Your task to perform on an android device: Search for pizza restaurants on Maps Image 0: 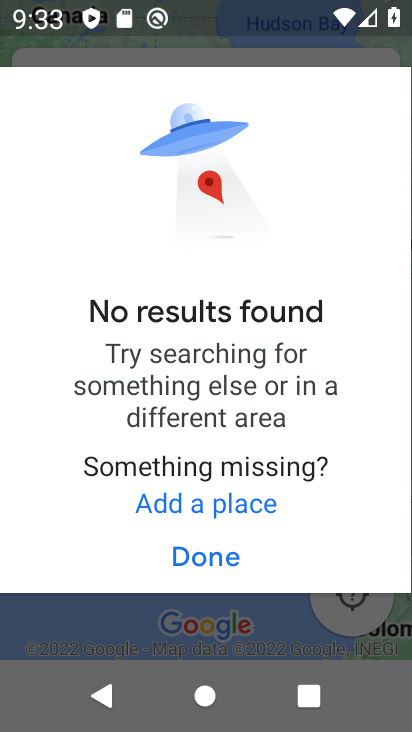
Step 0: press home button
Your task to perform on an android device: Search for pizza restaurants on Maps Image 1: 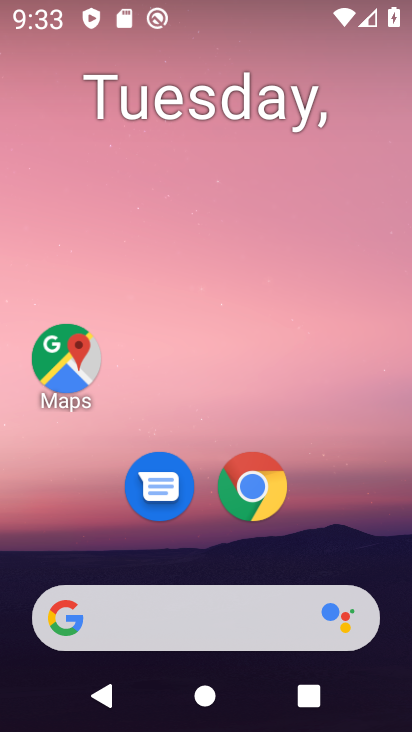
Step 1: drag from (365, 540) to (374, 164)
Your task to perform on an android device: Search for pizza restaurants on Maps Image 2: 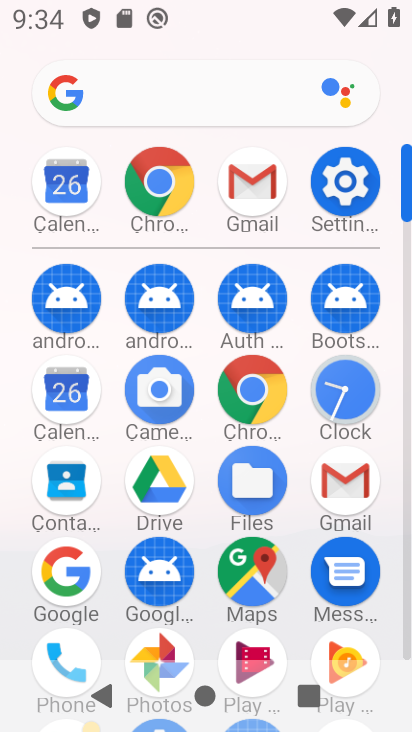
Step 2: click (249, 572)
Your task to perform on an android device: Search for pizza restaurants on Maps Image 3: 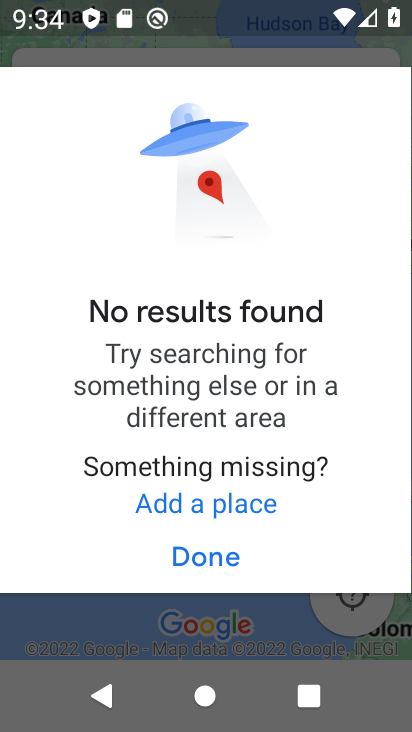
Step 3: click (225, 557)
Your task to perform on an android device: Search for pizza restaurants on Maps Image 4: 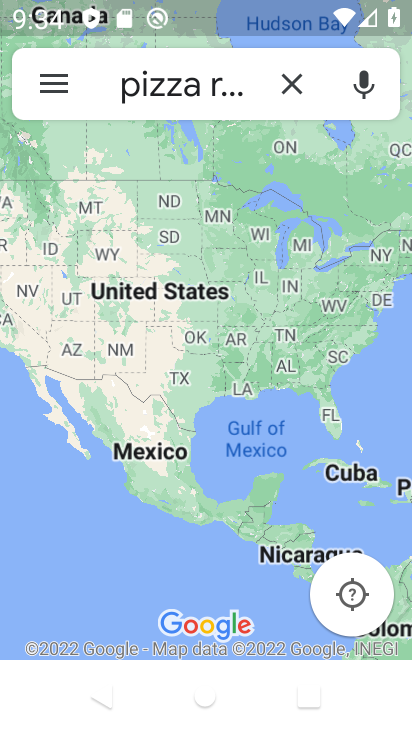
Step 4: click (295, 91)
Your task to perform on an android device: Search for pizza restaurants on Maps Image 5: 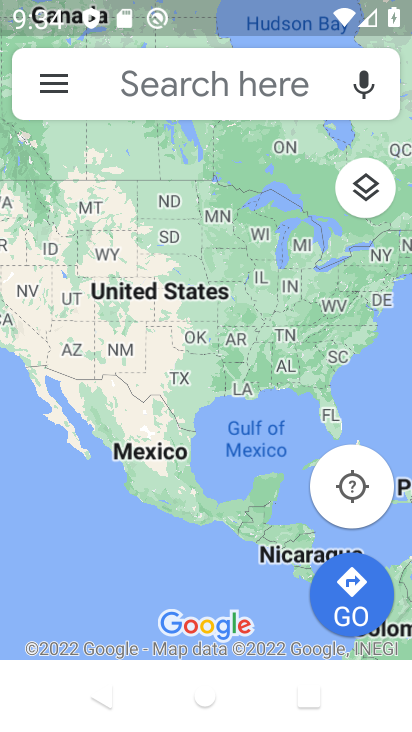
Step 5: click (290, 78)
Your task to perform on an android device: Search for pizza restaurants on Maps Image 6: 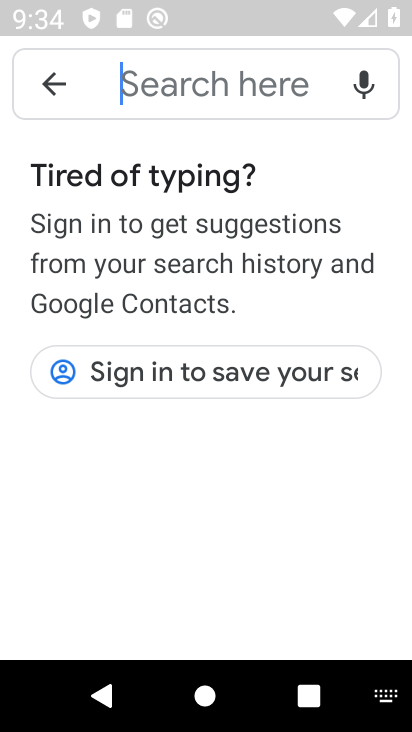
Step 6: type "pizza restaurants"
Your task to perform on an android device: Search for pizza restaurants on Maps Image 7: 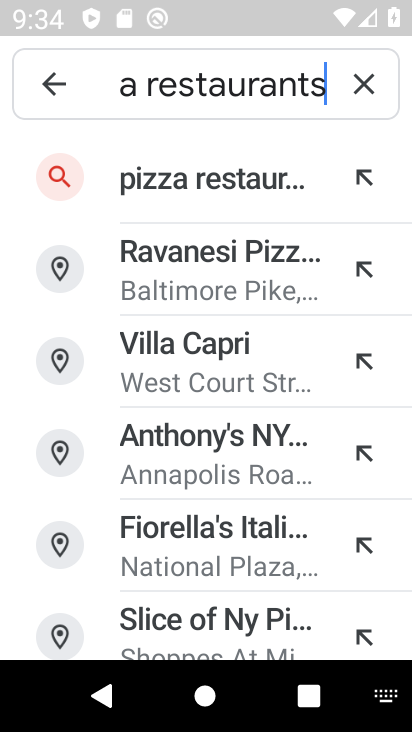
Step 7: click (314, 204)
Your task to perform on an android device: Search for pizza restaurants on Maps Image 8: 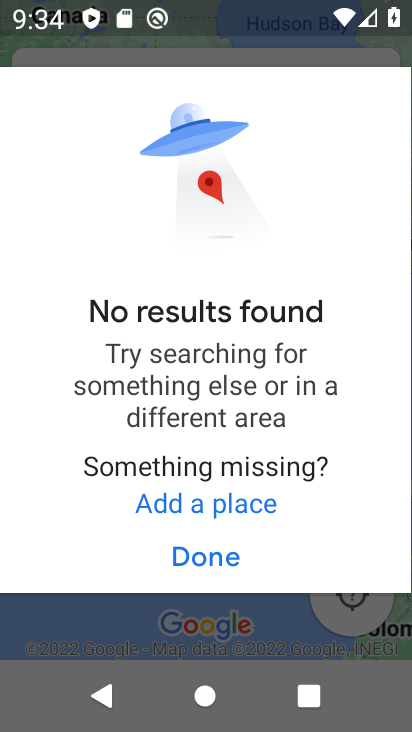
Step 8: task complete